Your task to perform on an android device: delete location history Image 0: 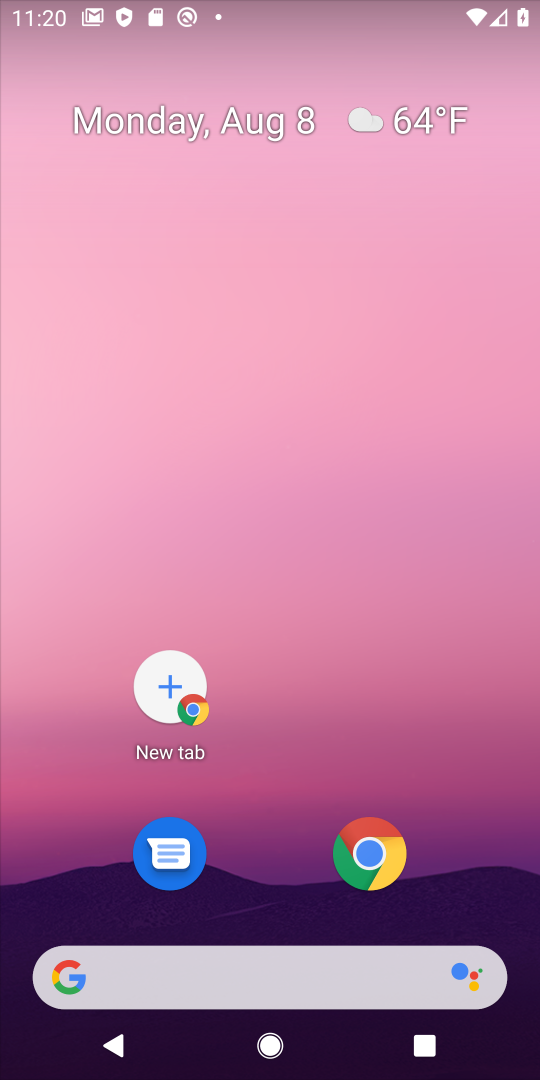
Step 0: drag from (278, 858) to (106, 36)
Your task to perform on an android device: delete location history Image 1: 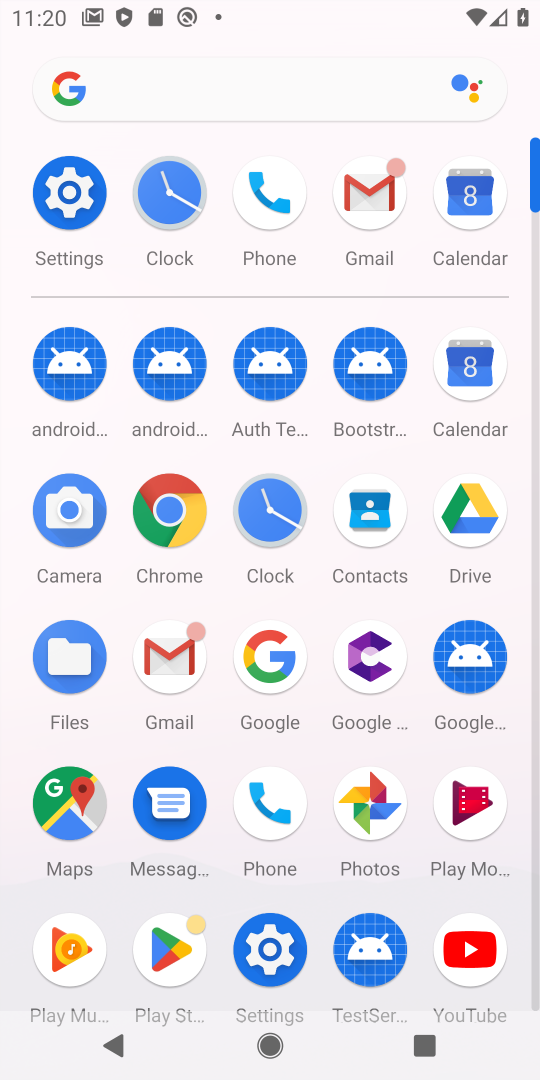
Step 1: click (76, 187)
Your task to perform on an android device: delete location history Image 2: 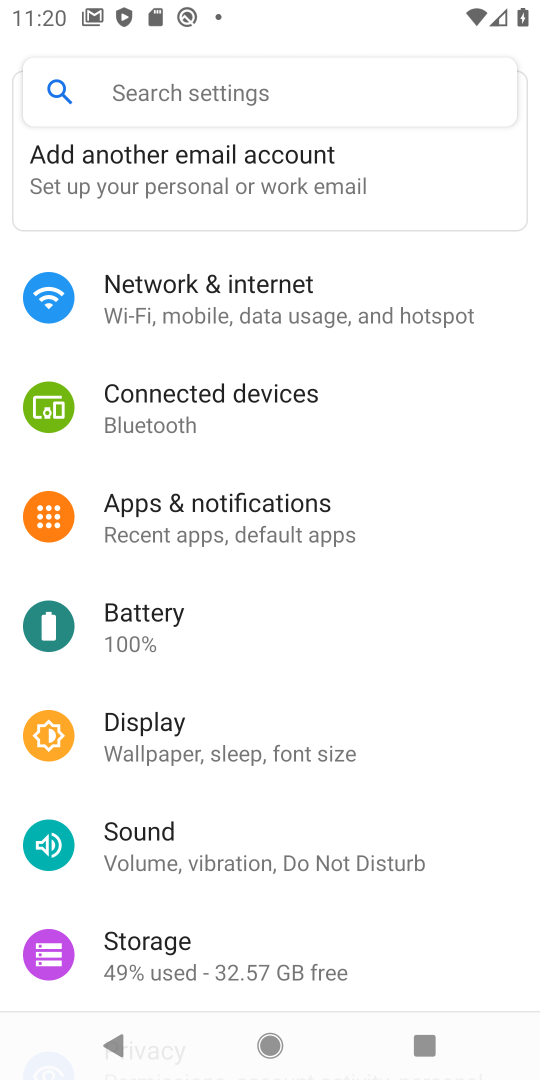
Step 2: drag from (336, 715) to (350, 397)
Your task to perform on an android device: delete location history Image 3: 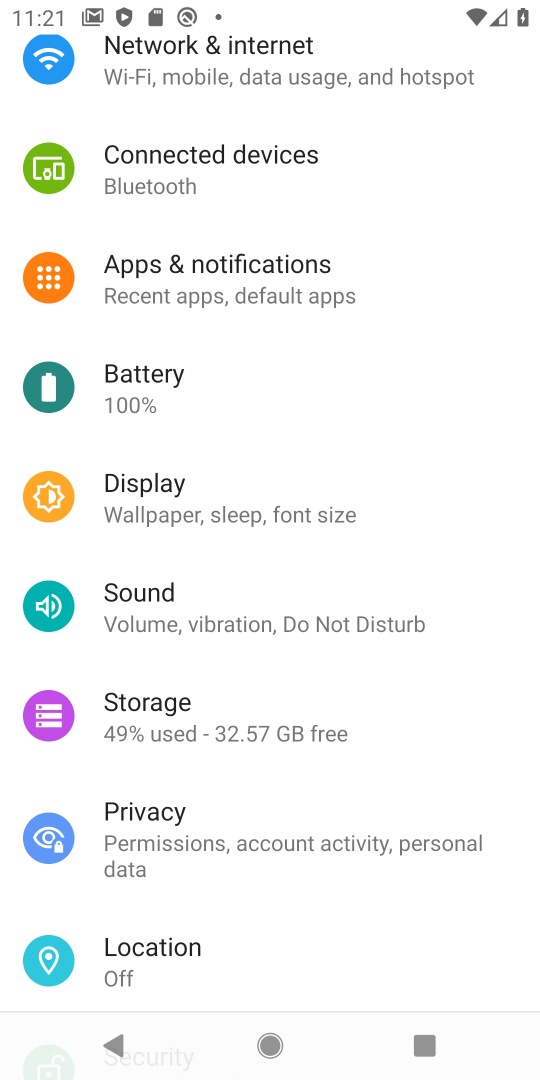
Step 3: click (187, 941)
Your task to perform on an android device: delete location history Image 4: 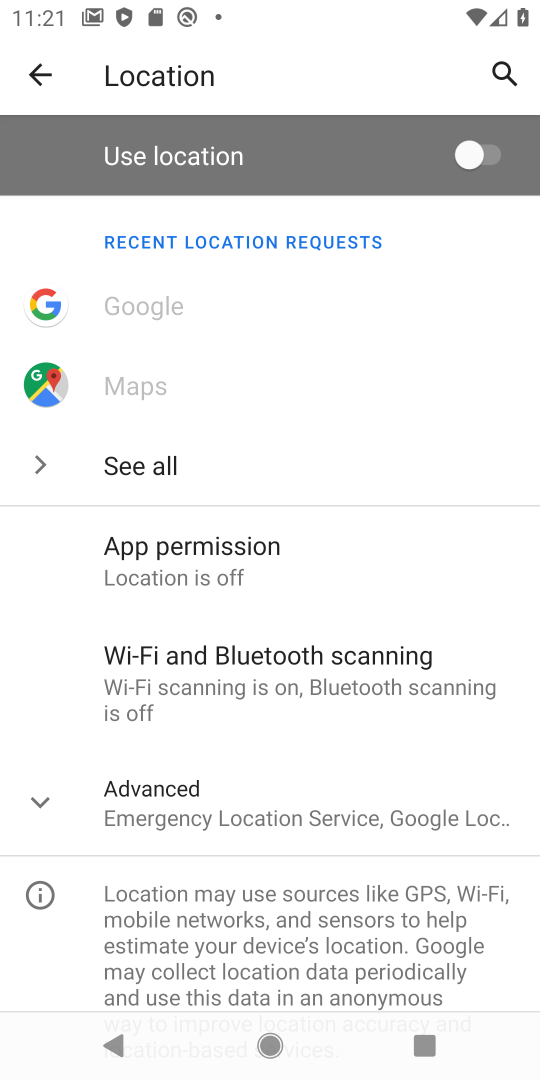
Step 4: click (471, 158)
Your task to perform on an android device: delete location history Image 5: 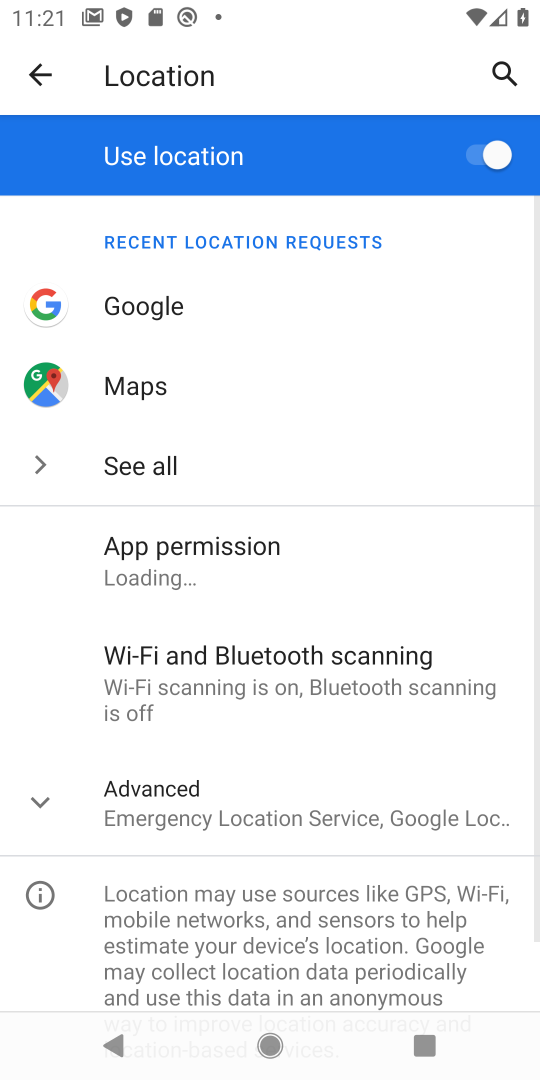
Step 5: click (162, 798)
Your task to perform on an android device: delete location history Image 6: 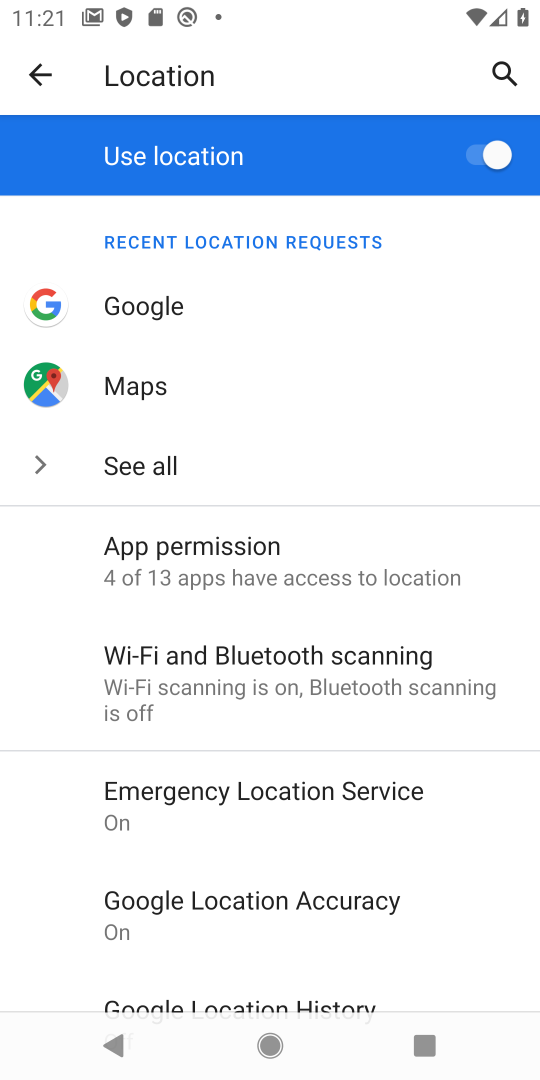
Step 6: click (173, 1002)
Your task to perform on an android device: delete location history Image 7: 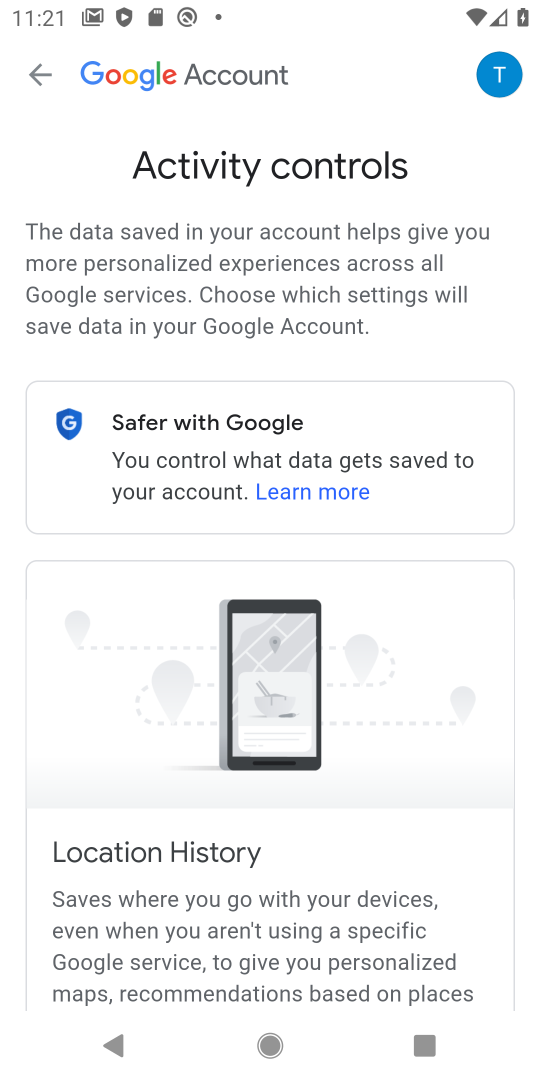
Step 7: drag from (386, 809) to (379, 105)
Your task to perform on an android device: delete location history Image 8: 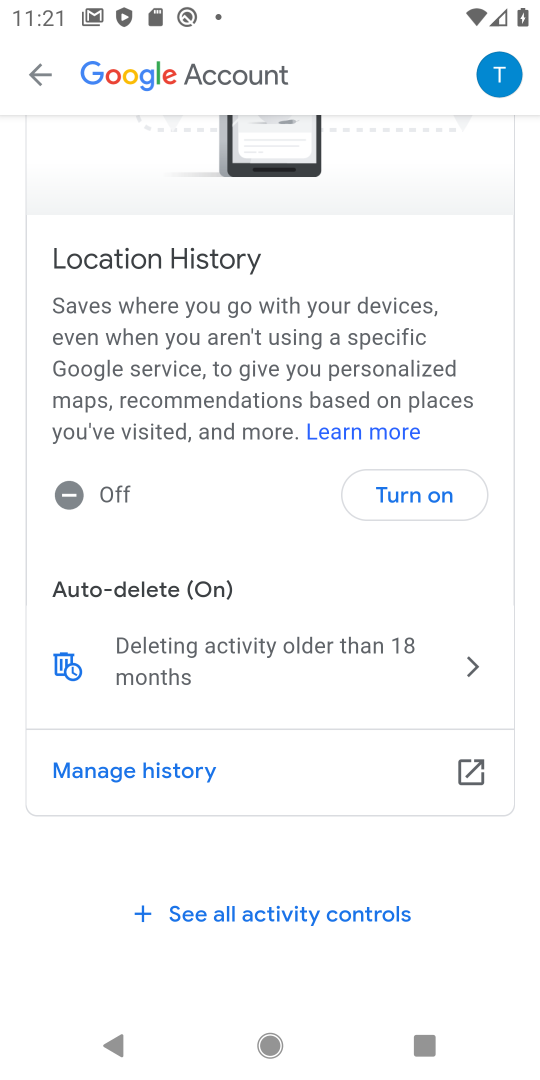
Step 8: click (62, 670)
Your task to perform on an android device: delete location history Image 9: 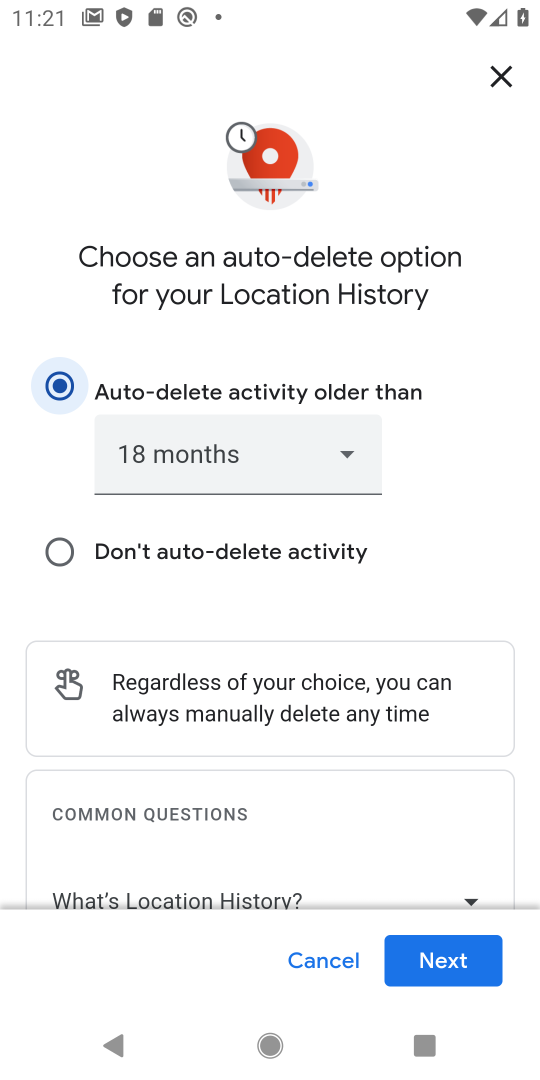
Step 9: click (445, 970)
Your task to perform on an android device: delete location history Image 10: 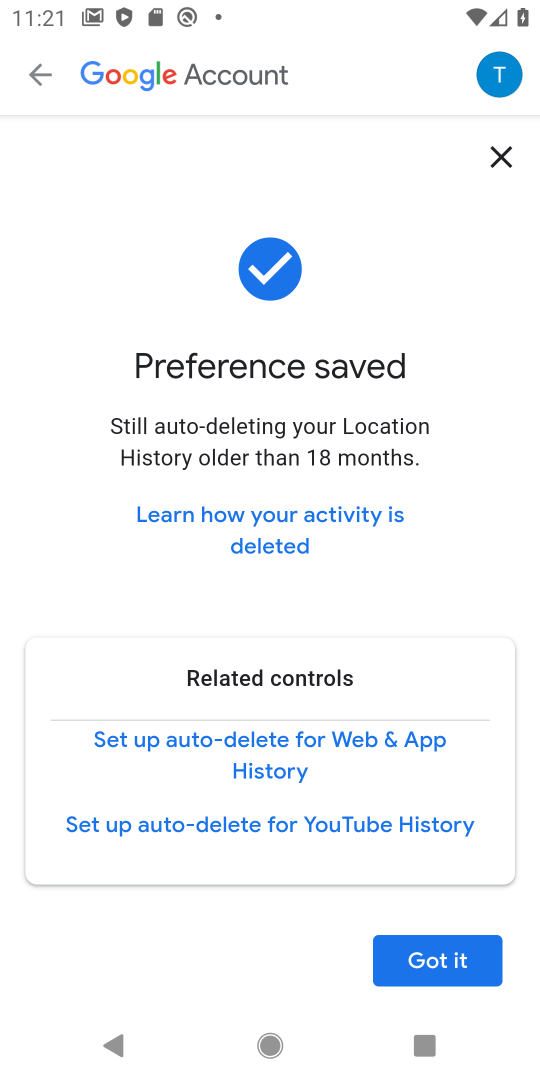
Step 10: task complete